Your task to perform on an android device: turn on data saver in the chrome app Image 0: 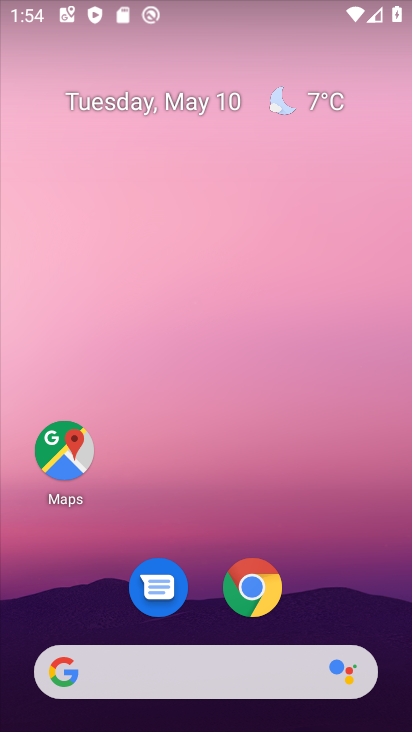
Step 0: click (250, 571)
Your task to perform on an android device: turn on data saver in the chrome app Image 1: 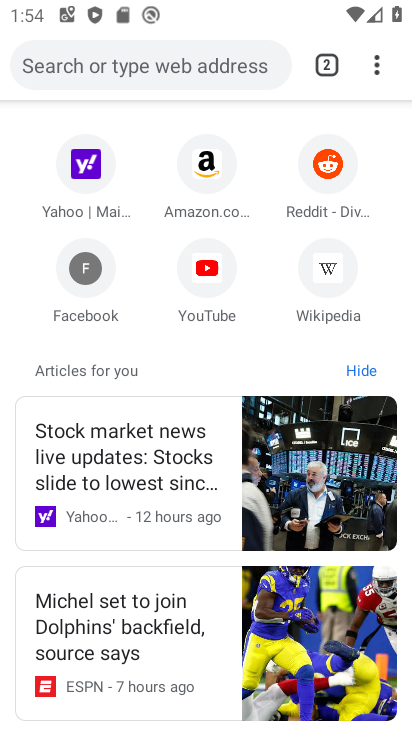
Step 1: click (377, 74)
Your task to perform on an android device: turn on data saver in the chrome app Image 2: 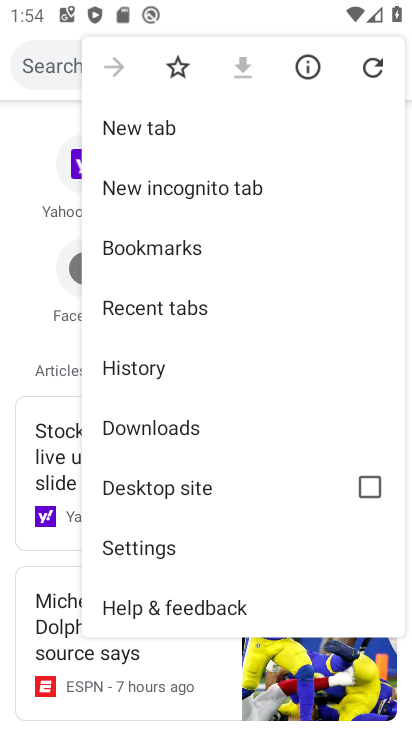
Step 2: click (163, 533)
Your task to perform on an android device: turn on data saver in the chrome app Image 3: 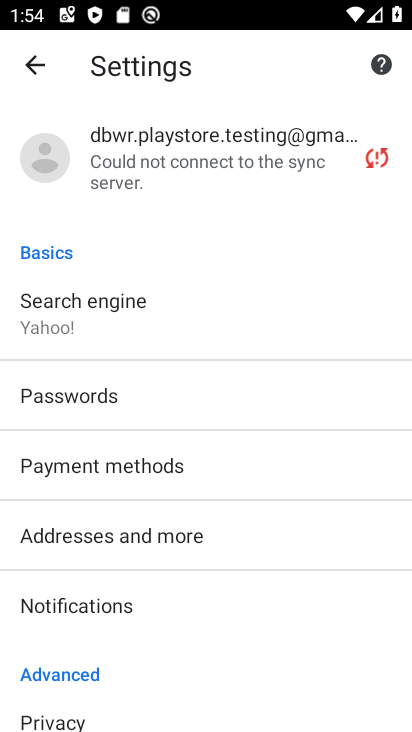
Step 3: drag from (247, 632) to (219, 207)
Your task to perform on an android device: turn on data saver in the chrome app Image 4: 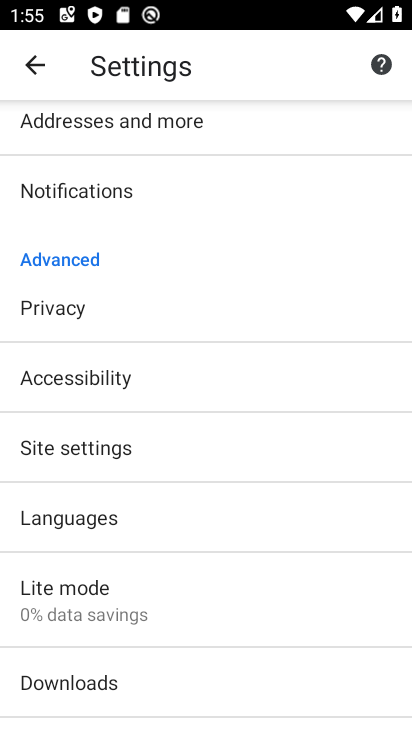
Step 4: click (123, 584)
Your task to perform on an android device: turn on data saver in the chrome app Image 5: 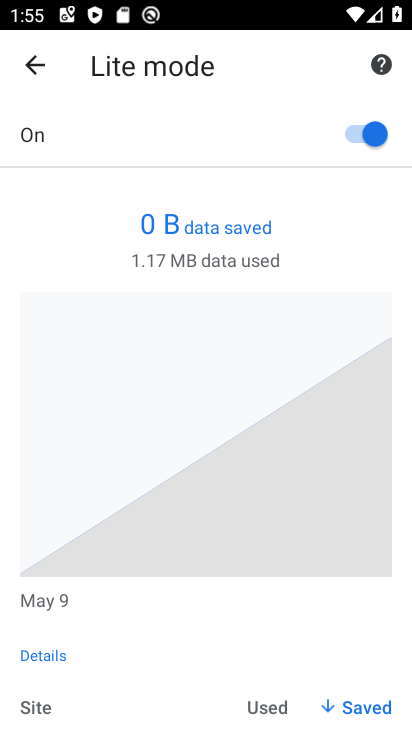
Step 5: task complete